Your task to perform on an android device: Show me productivity apps on the Play Store Image 0: 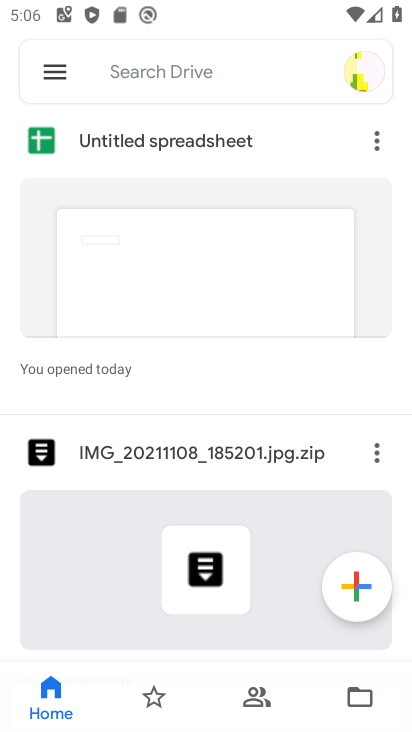
Step 0: press home button
Your task to perform on an android device: Show me productivity apps on the Play Store Image 1: 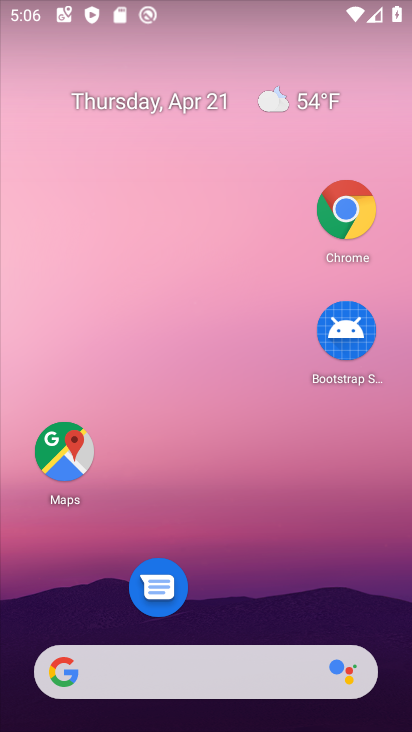
Step 1: drag from (291, 604) to (325, 124)
Your task to perform on an android device: Show me productivity apps on the Play Store Image 2: 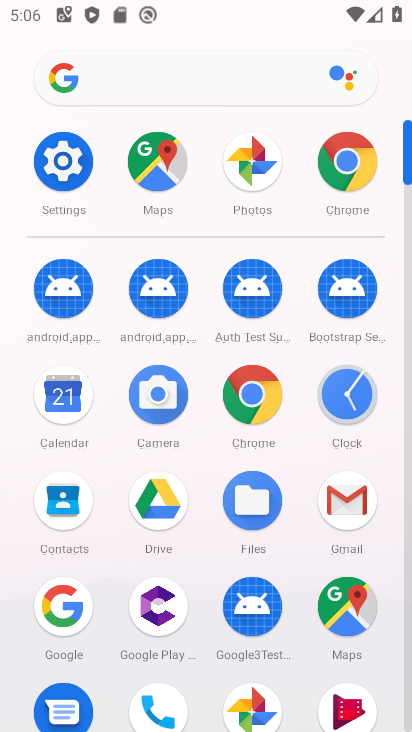
Step 2: drag from (312, 260) to (310, 4)
Your task to perform on an android device: Show me productivity apps on the Play Store Image 3: 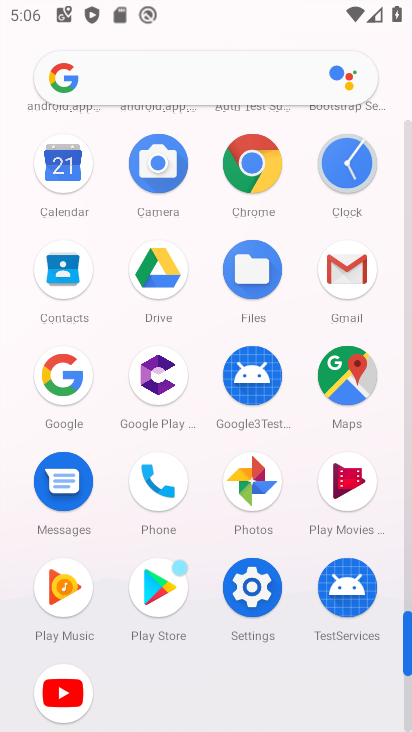
Step 3: click (156, 582)
Your task to perform on an android device: Show me productivity apps on the Play Store Image 4: 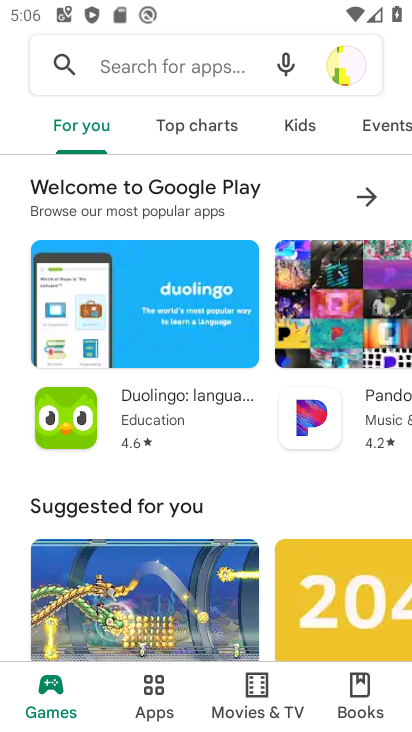
Step 4: click (159, 66)
Your task to perform on an android device: Show me productivity apps on the Play Store Image 5: 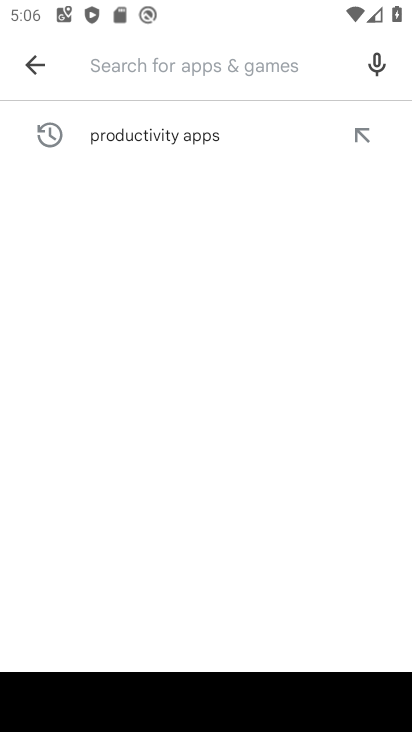
Step 5: type " productivity apps"
Your task to perform on an android device: Show me productivity apps on the Play Store Image 6: 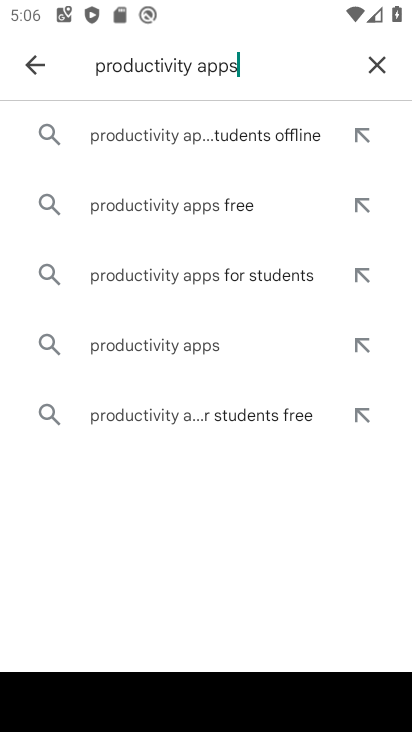
Step 6: click (158, 344)
Your task to perform on an android device: Show me productivity apps on the Play Store Image 7: 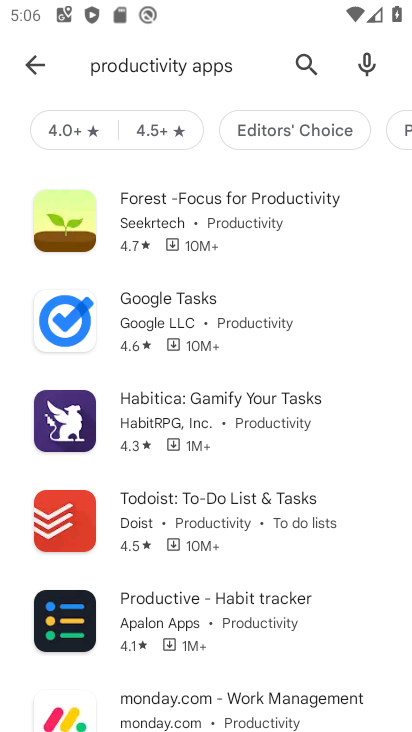
Step 7: task complete